Your task to perform on an android device: find photos in the google photos app Image 0: 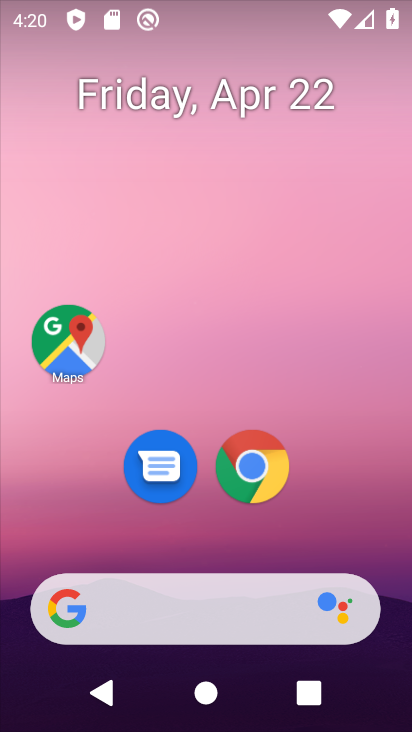
Step 0: drag from (373, 567) to (342, 299)
Your task to perform on an android device: find photos in the google photos app Image 1: 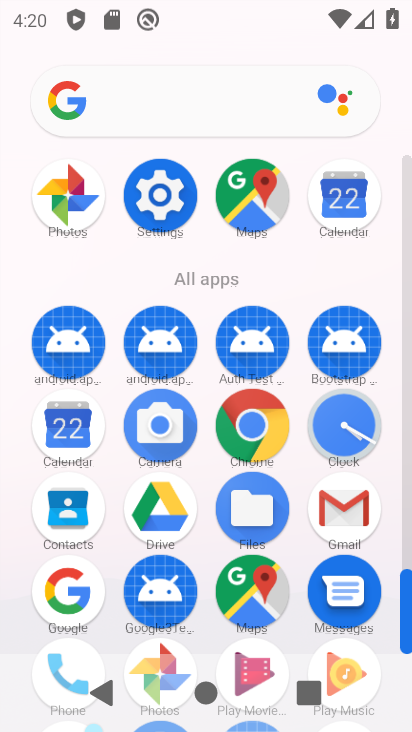
Step 1: click (63, 204)
Your task to perform on an android device: find photos in the google photos app Image 2: 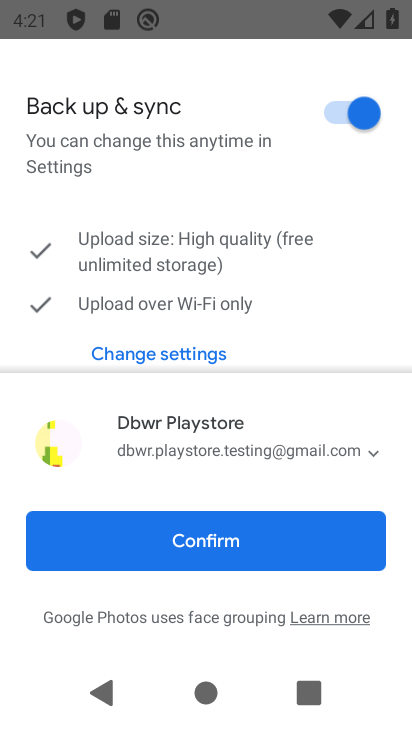
Step 2: click (203, 547)
Your task to perform on an android device: find photos in the google photos app Image 3: 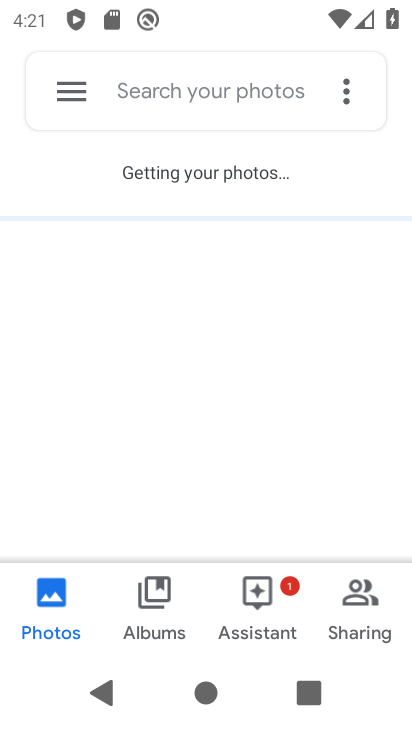
Step 3: task complete